Your task to perform on an android device: uninstall "Google Drive" Image 0: 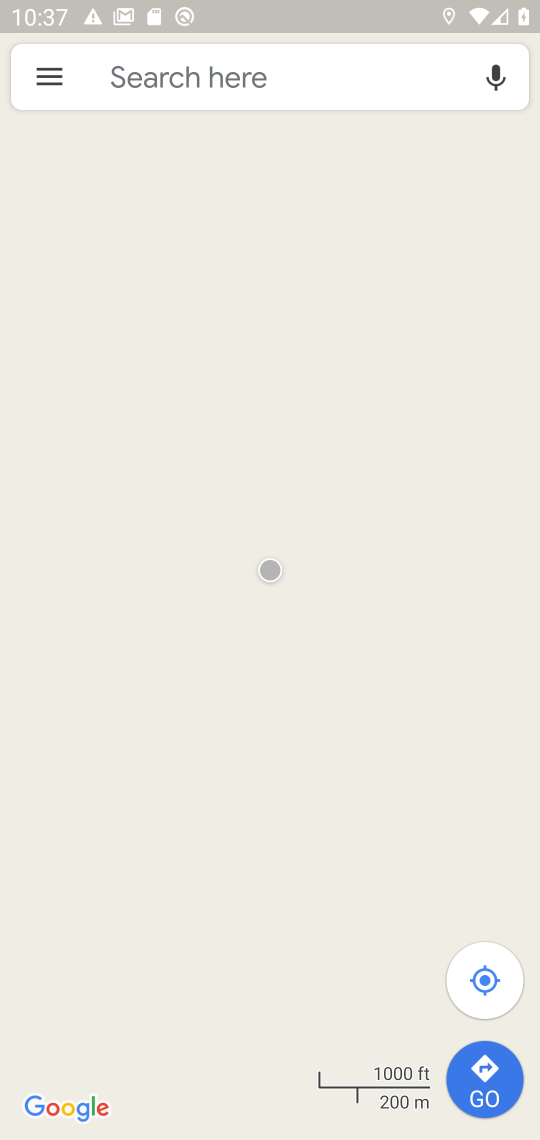
Step 0: click (151, 327)
Your task to perform on an android device: uninstall "Google Drive" Image 1: 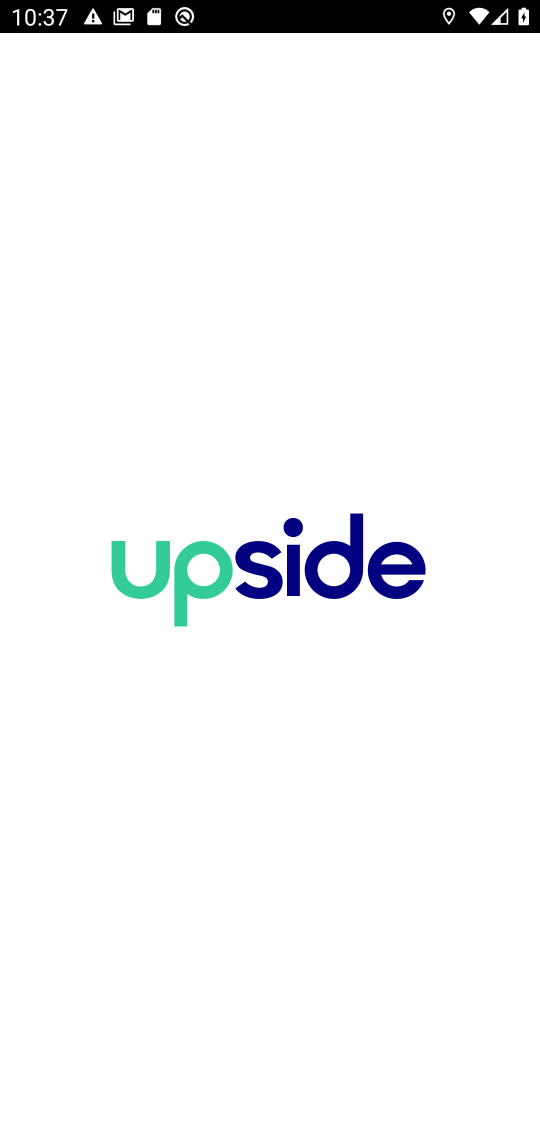
Step 1: click (301, 17)
Your task to perform on an android device: uninstall "Google Drive" Image 2: 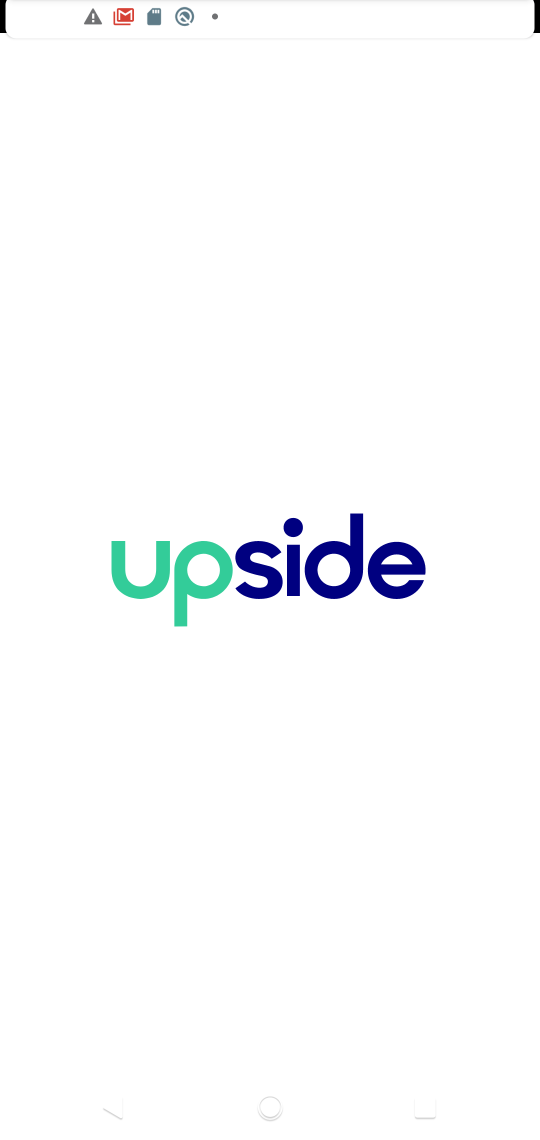
Step 2: press home button
Your task to perform on an android device: uninstall "Google Drive" Image 3: 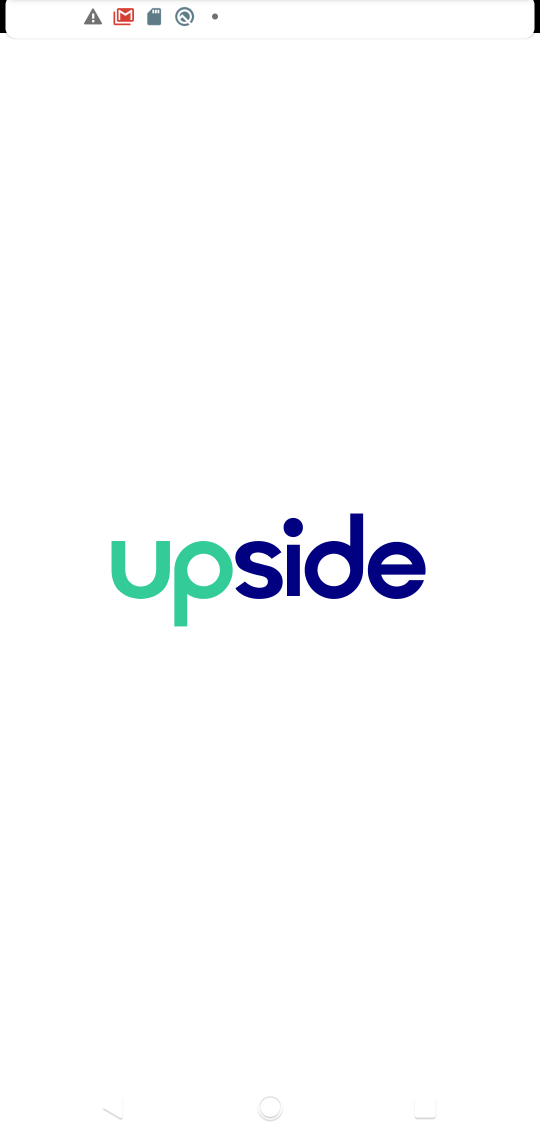
Step 3: click (534, 466)
Your task to perform on an android device: uninstall "Google Drive" Image 4: 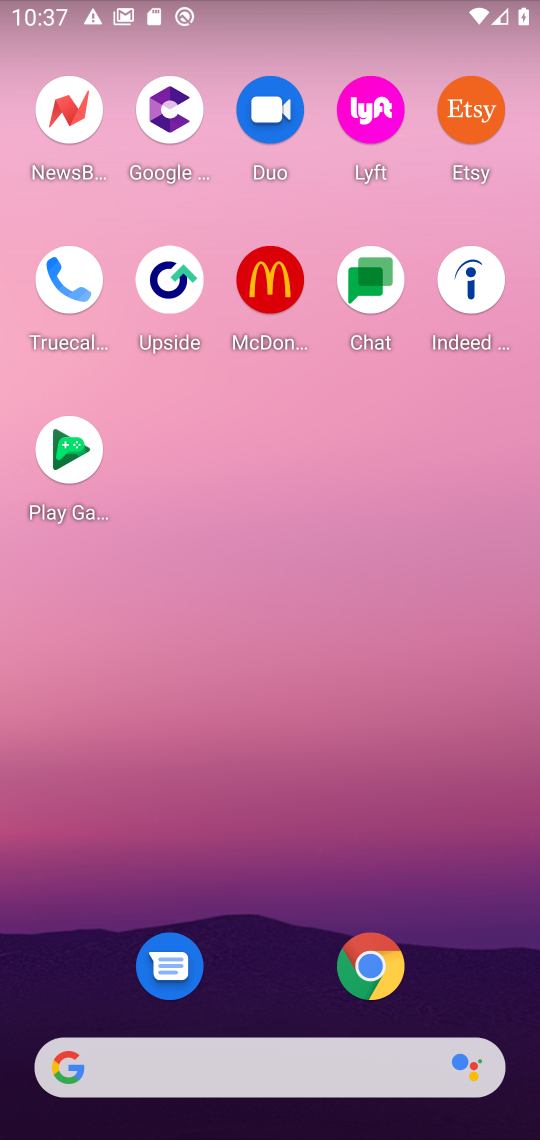
Step 4: drag from (261, 937) to (360, 20)
Your task to perform on an android device: uninstall "Google Drive" Image 5: 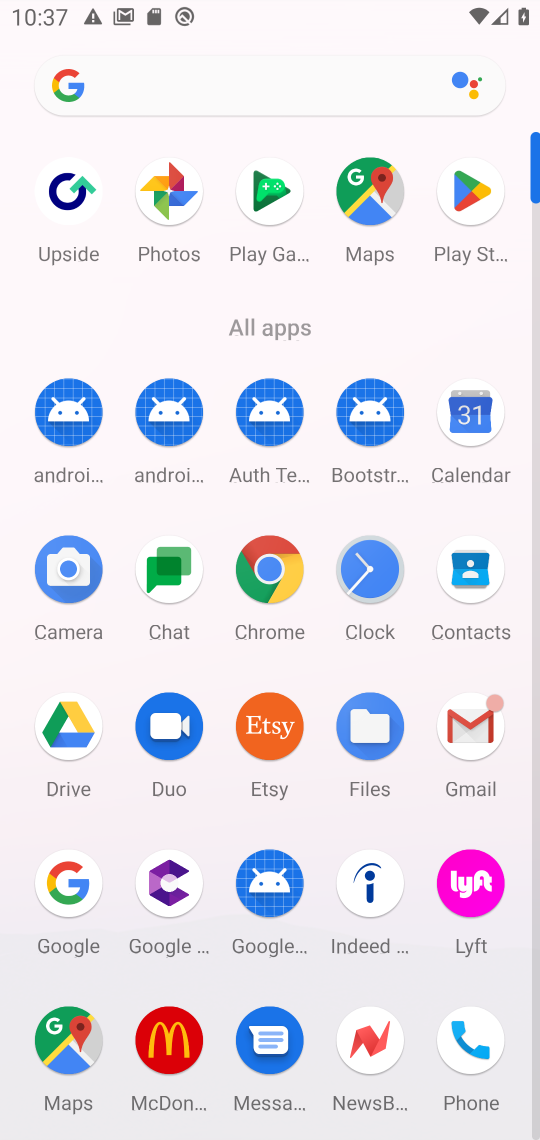
Step 5: drag from (262, 926) to (248, 764)
Your task to perform on an android device: uninstall "Google Drive" Image 6: 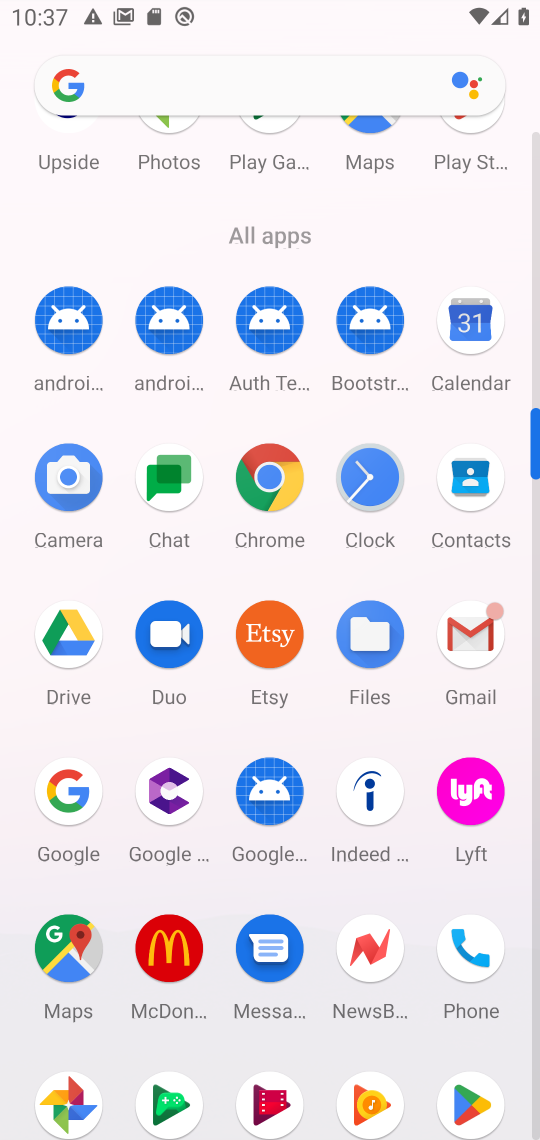
Step 6: click (475, 132)
Your task to perform on an android device: uninstall "Google Drive" Image 7: 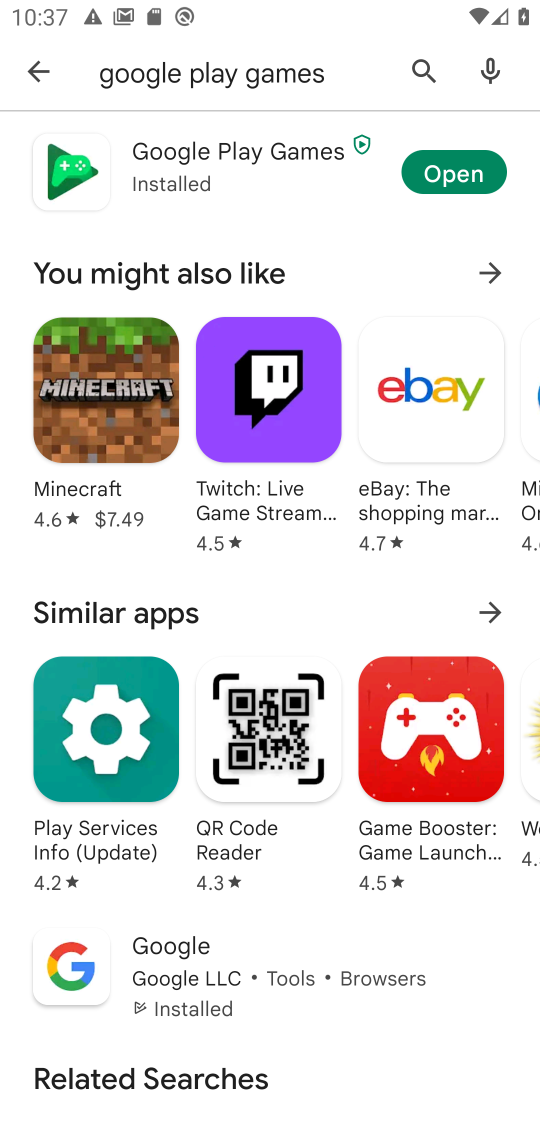
Step 7: drag from (485, 163) to (450, 612)
Your task to perform on an android device: uninstall "Google Drive" Image 8: 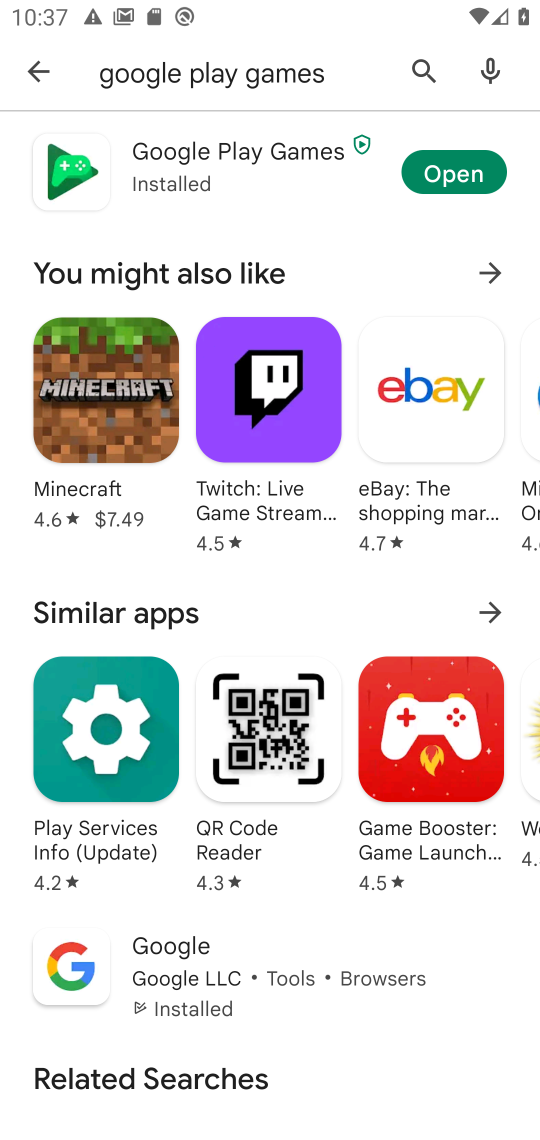
Step 8: click (273, 69)
Your task to perform on an android device: uninstall "Google Drive" Image 9: 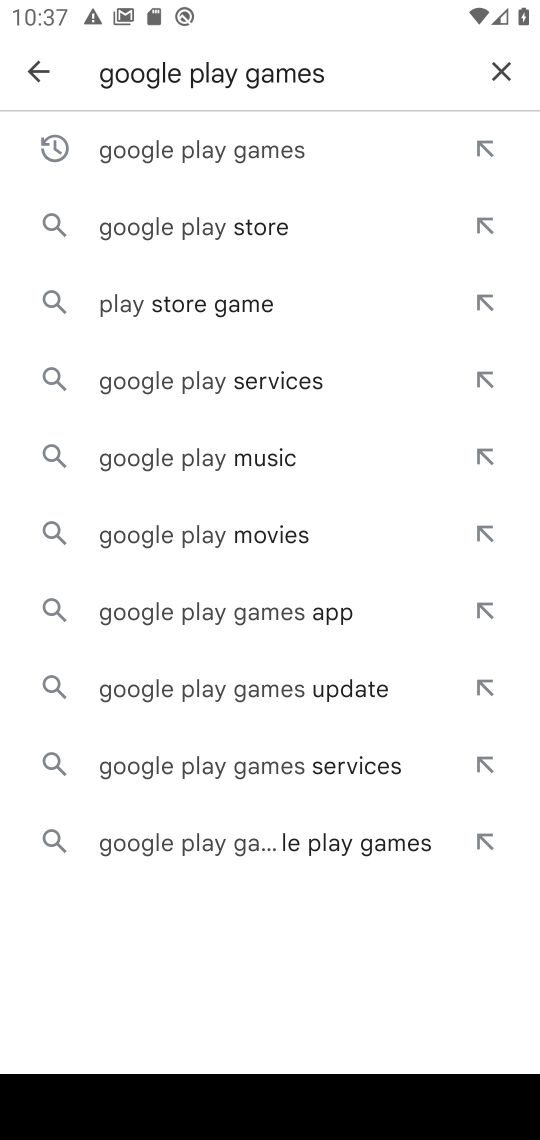
Step 9: click (492, 64)
Your task to perform on an android device: uninstall "Google Drive" Image 10: 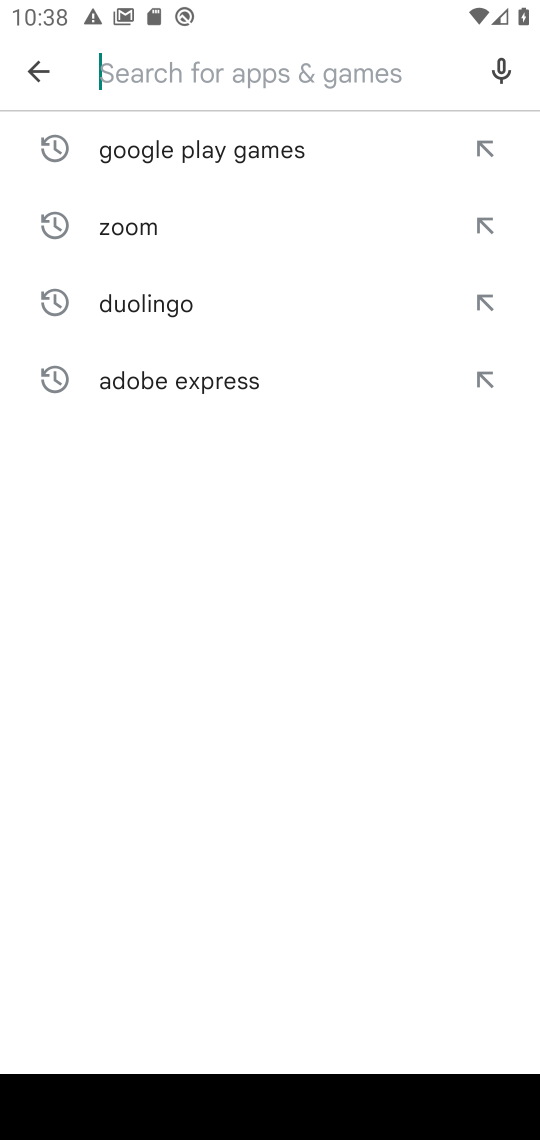
Step 10: type "drive"
Your task to perform on an android device: uninstall "Google Drive" Image 11: 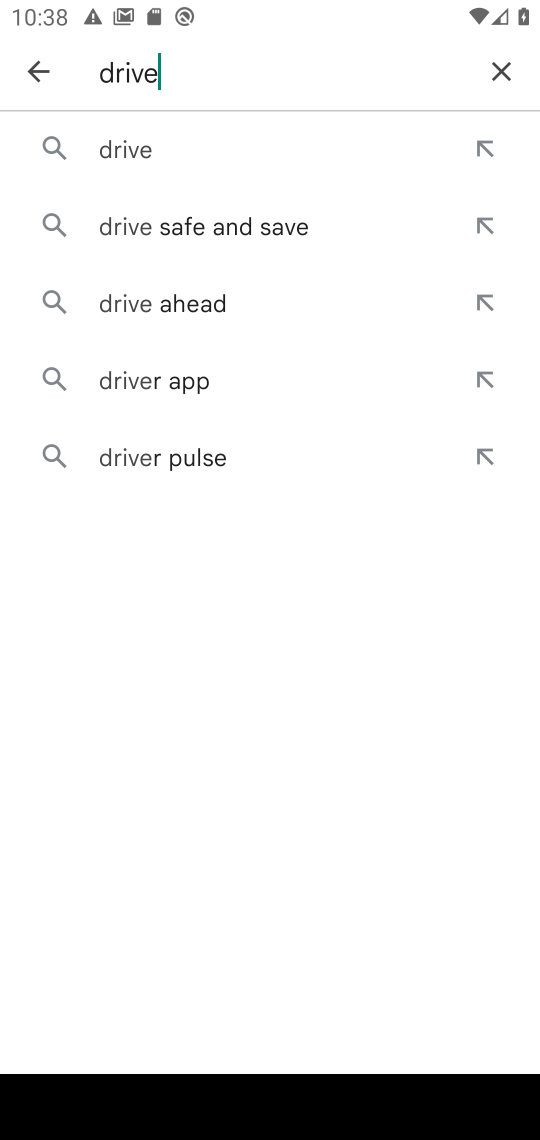
Step 11: click (187, 158)
Your task to perform on an android device: uninstall "Google Drive" Image 12: 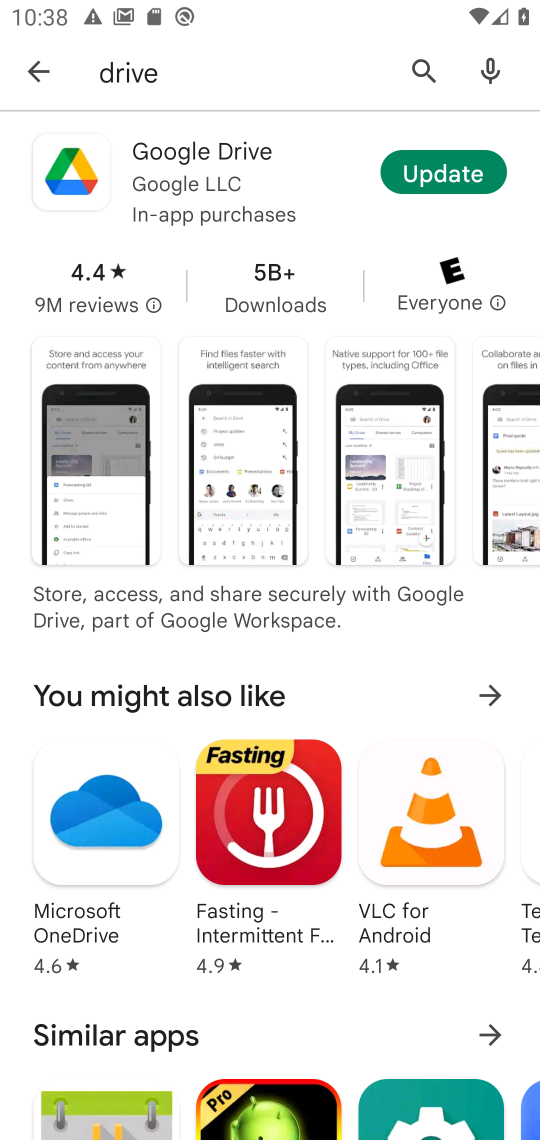
Step 12: click (480, 187)
Your task to perform on an android device: uninstall "Google Drive" Image 13: 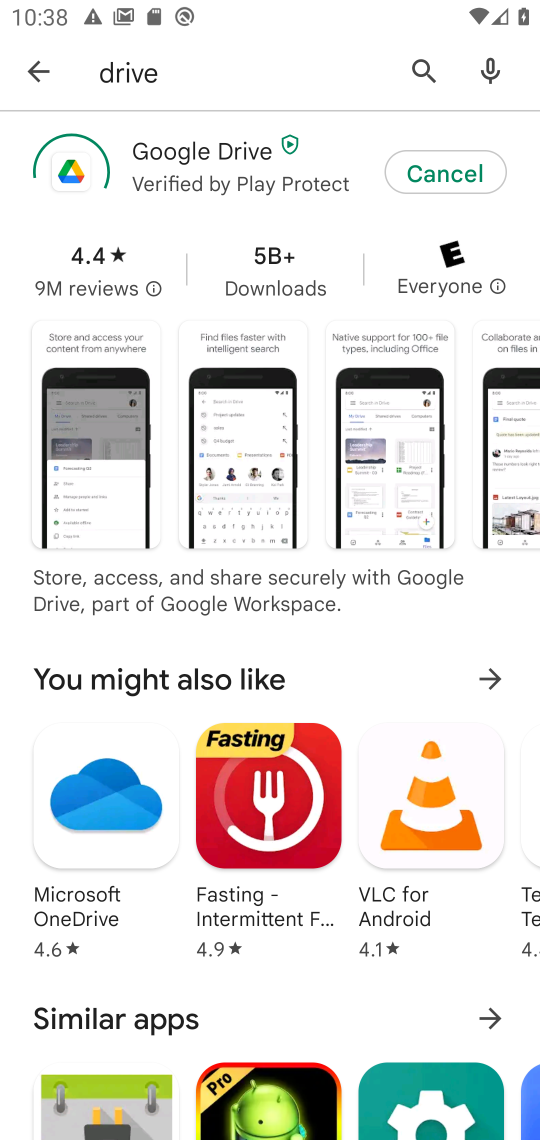
Step 13: click (452, 166)
Your task to perform on an android device: uninstall "Google Drive" Image 14: 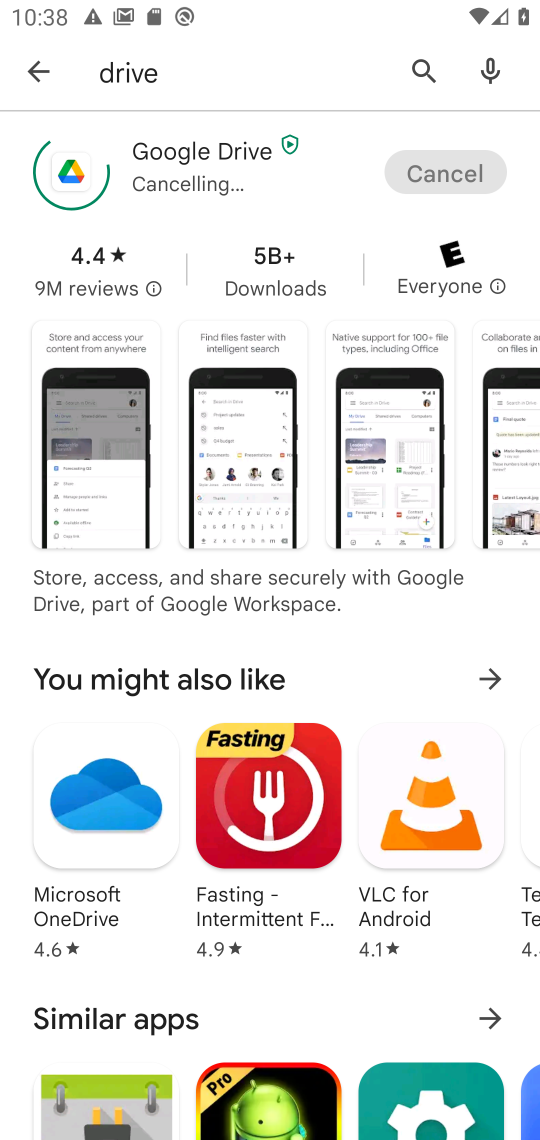
Step 14: click (96, 160)
Your task to perform on an android device: uninstall "Google Drive" Image 15: 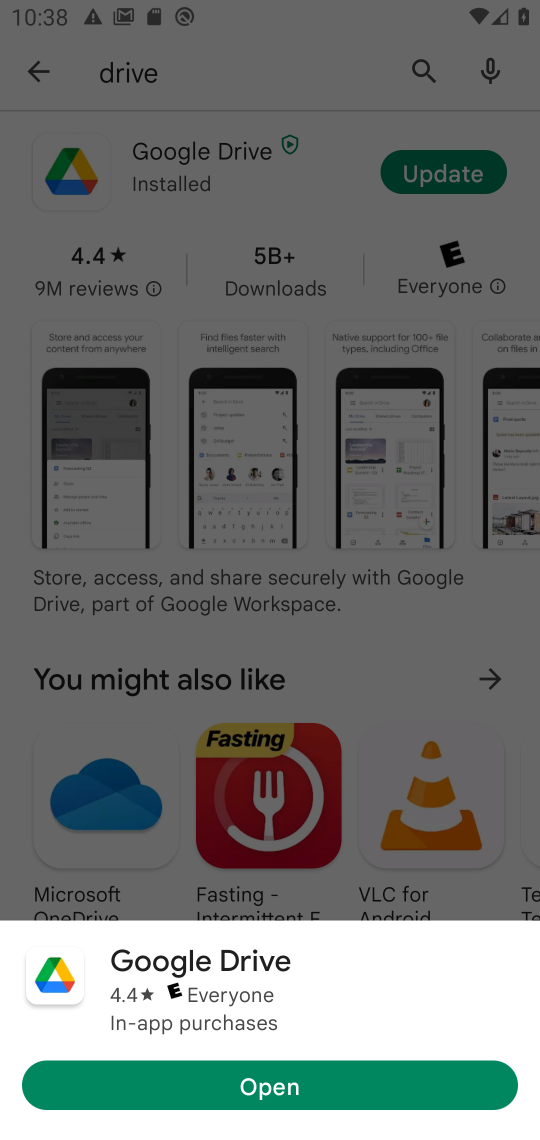
Step 15: click (66, 169)
Your task to perform on an android device: uninstall "Google Drive" Image 16: 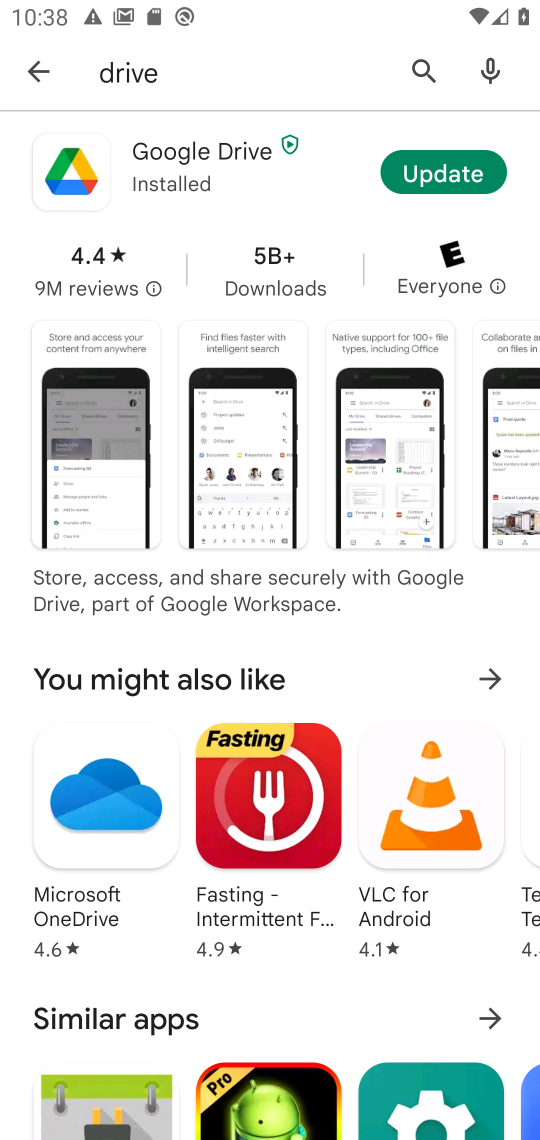
Step 16: click (66, 169)
Your task to perform on an android device: uninstall "Google Drive" Image 17: 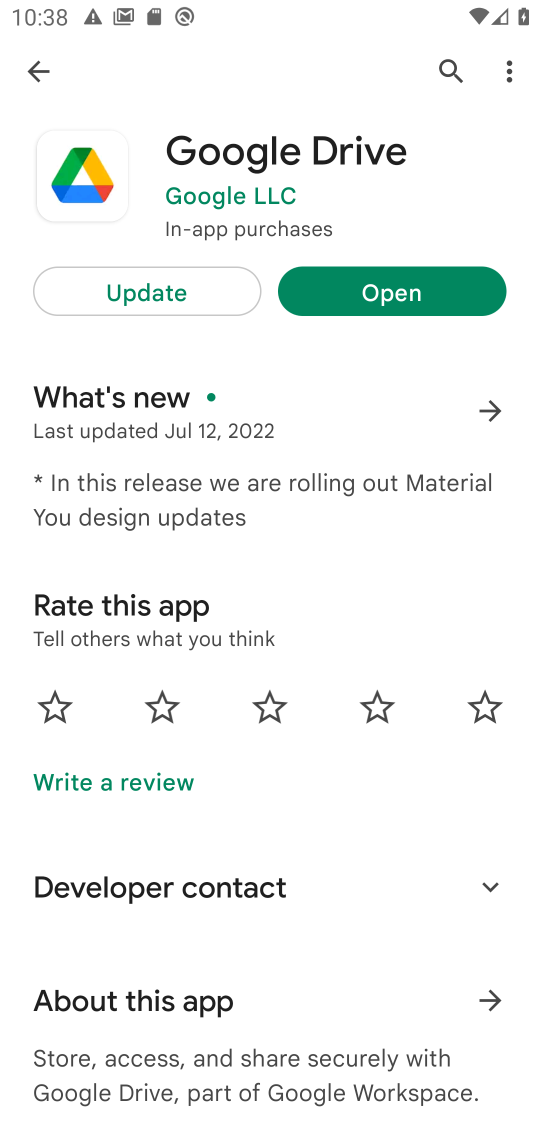
Step 17: task complete